Your task to perform on an android device: move a message to another label in the gmail app Image 0: 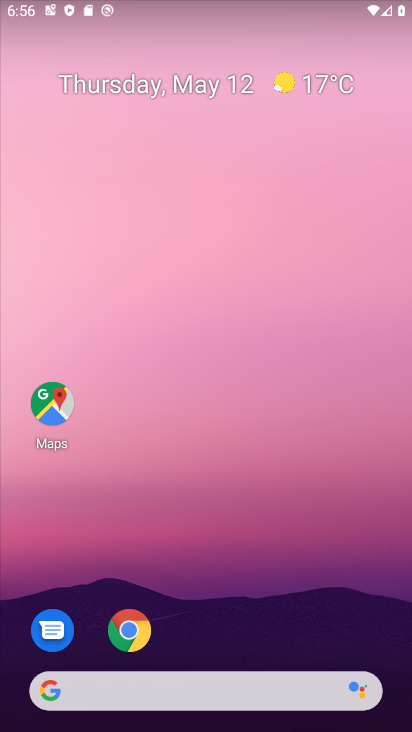
Step 0: drag from (398, 656) to (217, 63)
Your task to perform on an android device: move a message to another label in the gmail app Image 1: 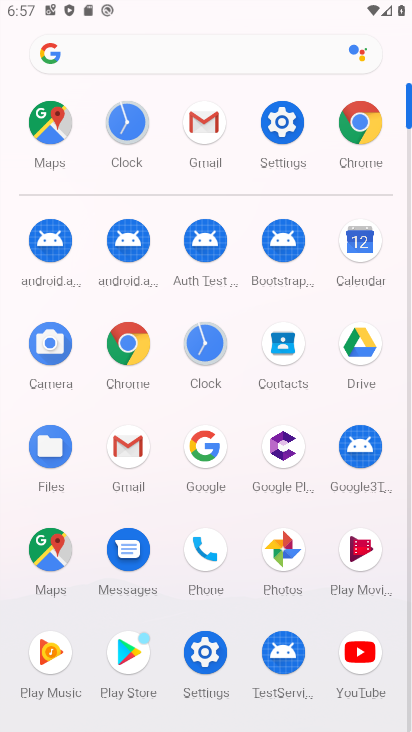
Step 1: click (121, 444)
Your task to perform on an android device: move a message to another label in the gmail app Image 2: 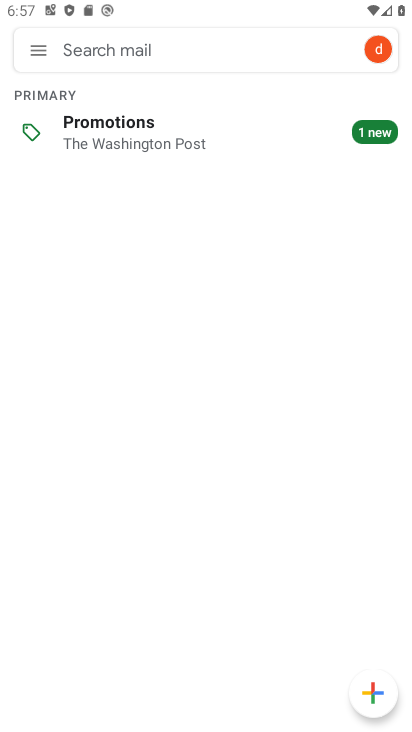
Step 2: task complete